Your task to perform on an android device: change alarm snooze length Image 0: 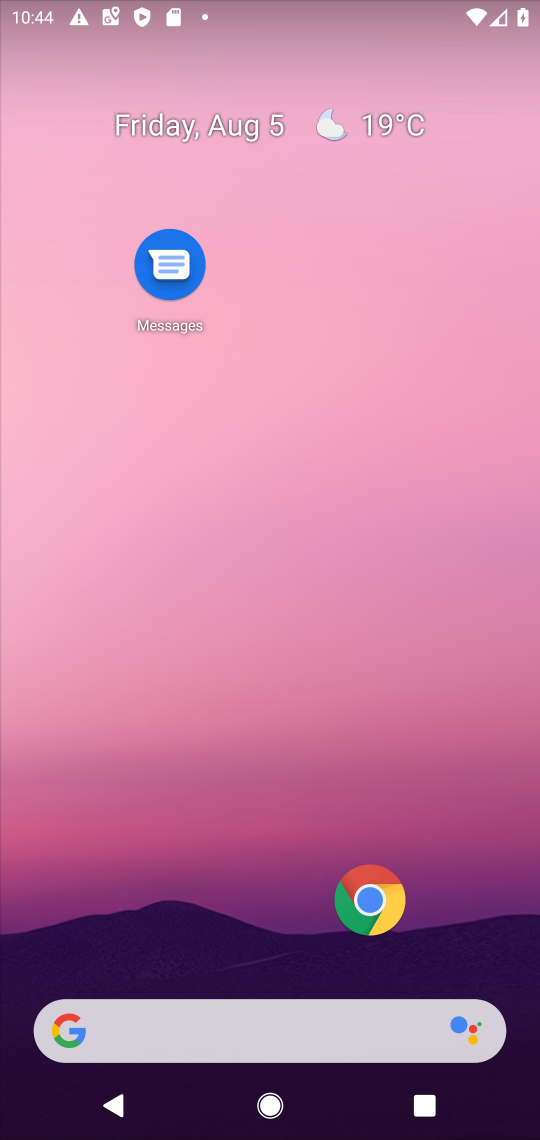
Step 0: press home button
Your task to perform on an android device: change alarm snooze length Image 1: 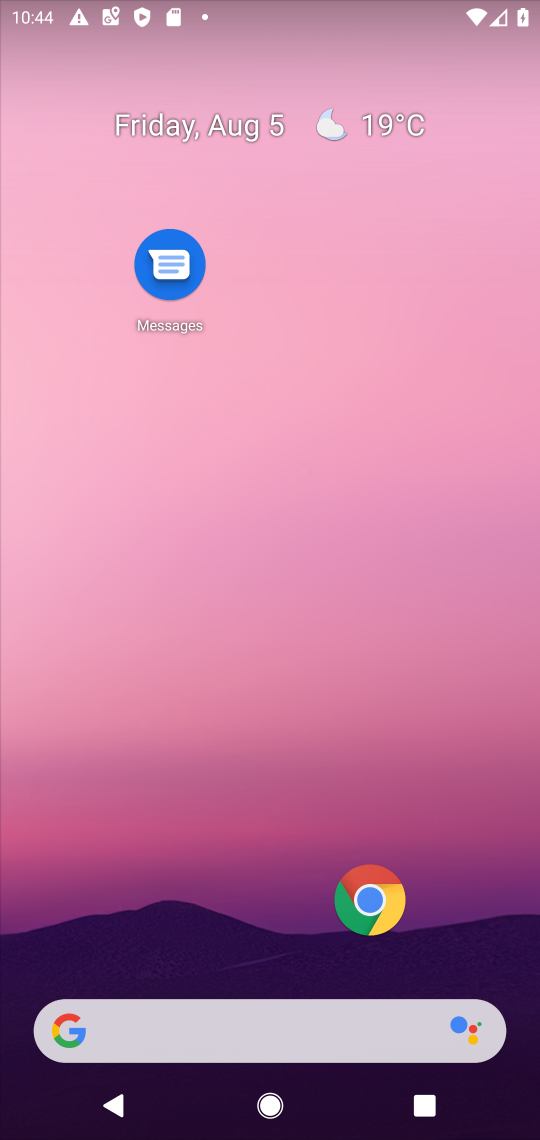
Step 1: drag from (292, 744) to (354, 202)
Your task to perform on an android device: change alarm snooze length Image 2: 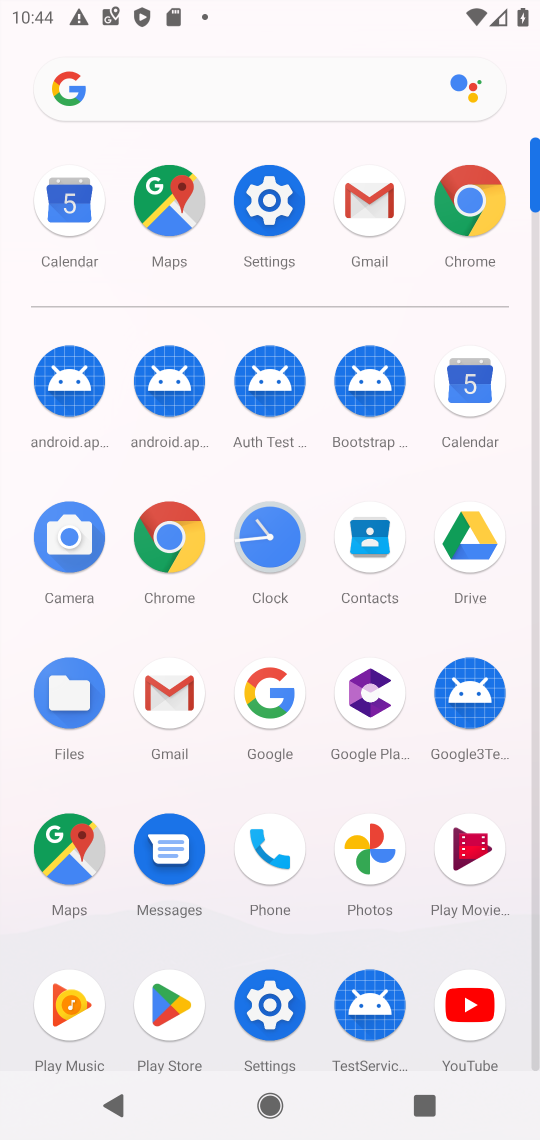
Step 2: click (262, 1010)
Your task to perform on an android device: change alarm snooze length Image 3: 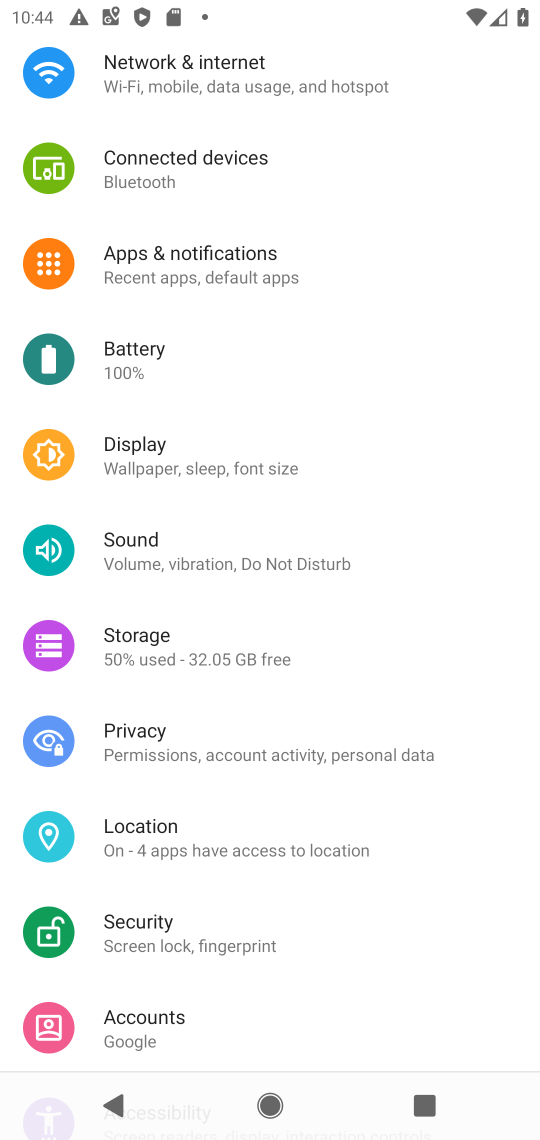
Step 3: press home button
Your task to perform on an android device: change alarm snooze length Image 4: 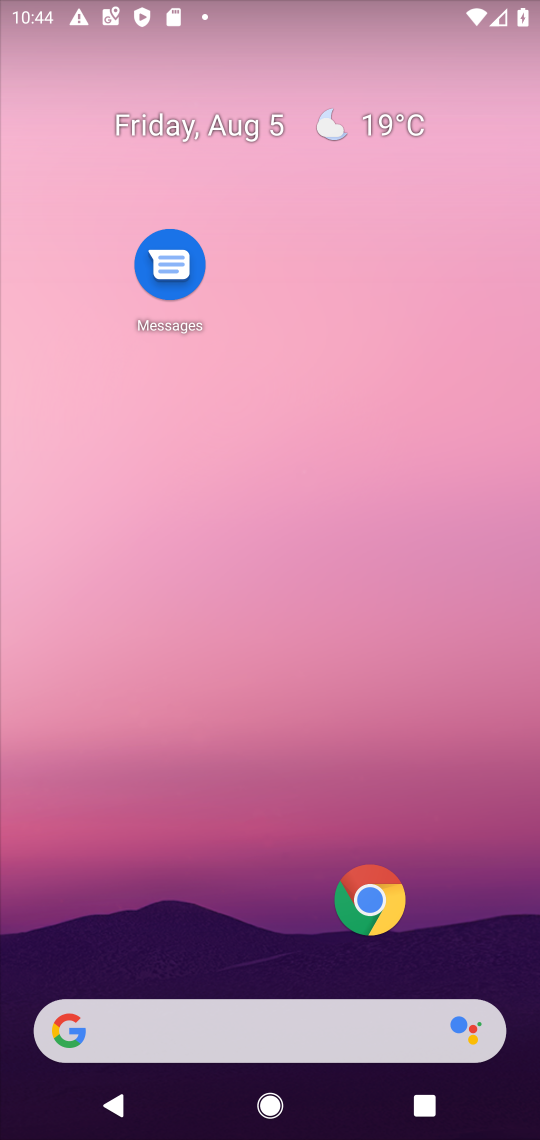
Step 4: drag from (357, 995) to (271, 347)
Your task to perform on an android device: change alarm snooze length Image 5: 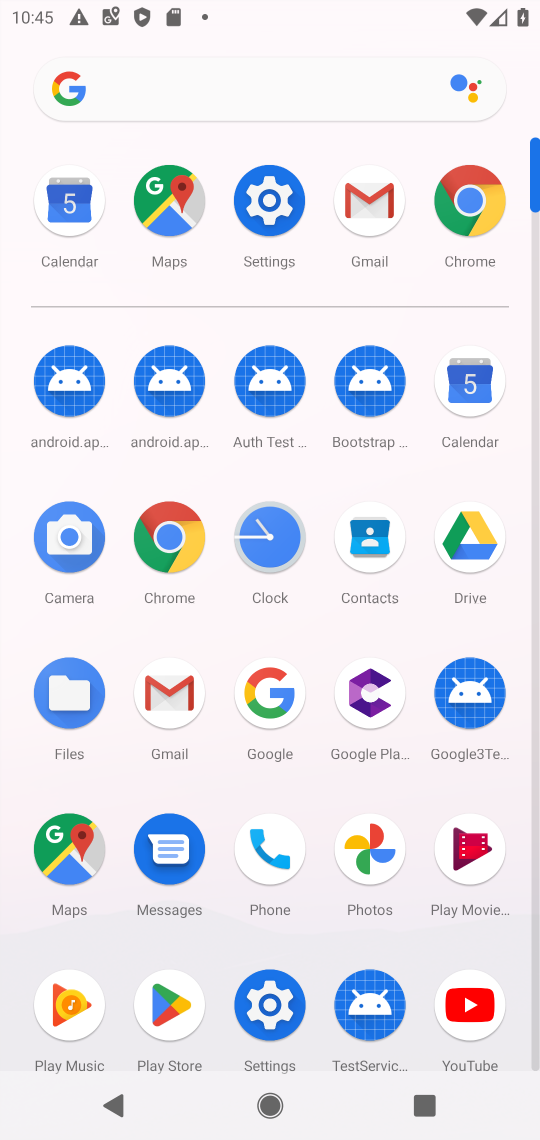
Step 5: click (293, 562)
Your task to perform on an android device: change alarm snooze length Image 6: 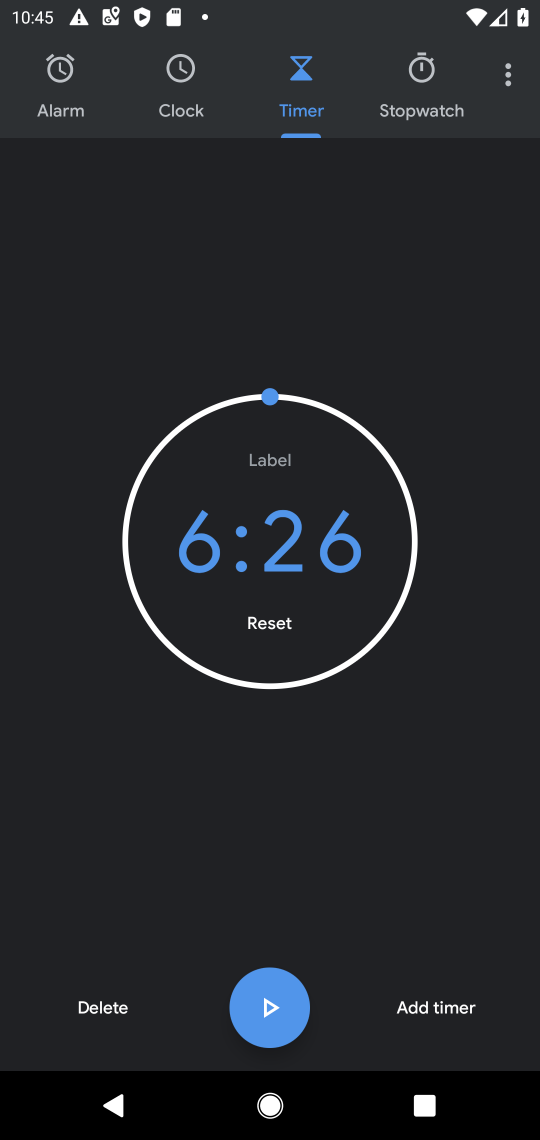
Step 6: click (511, 66)
Your task to perform on an android device: change alarm snooze length Image 7: 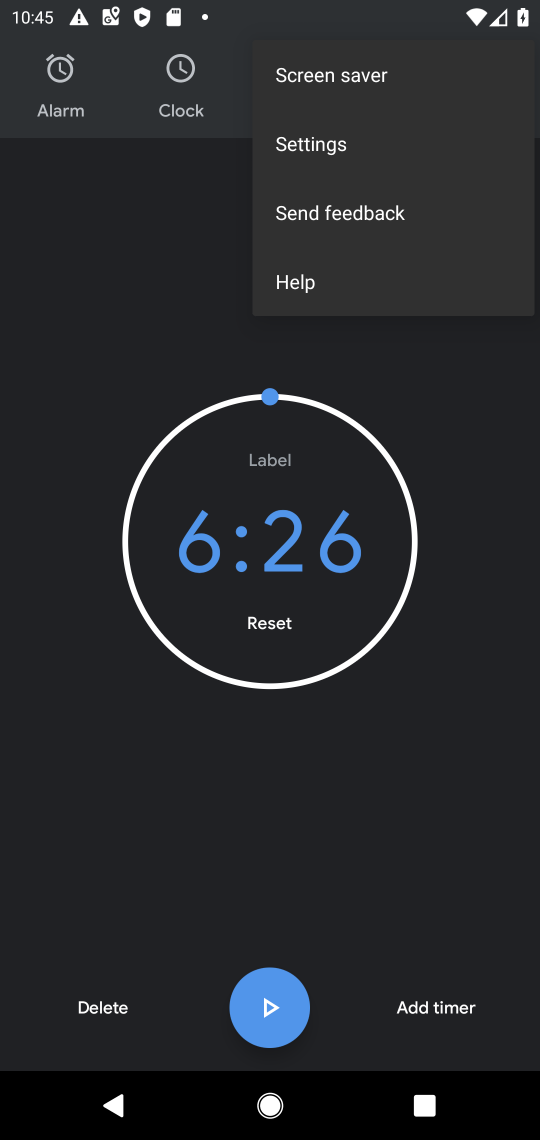
Step 7: click (310, 153)
Your task to perform on an android device: change alarm snooze length Image 8: 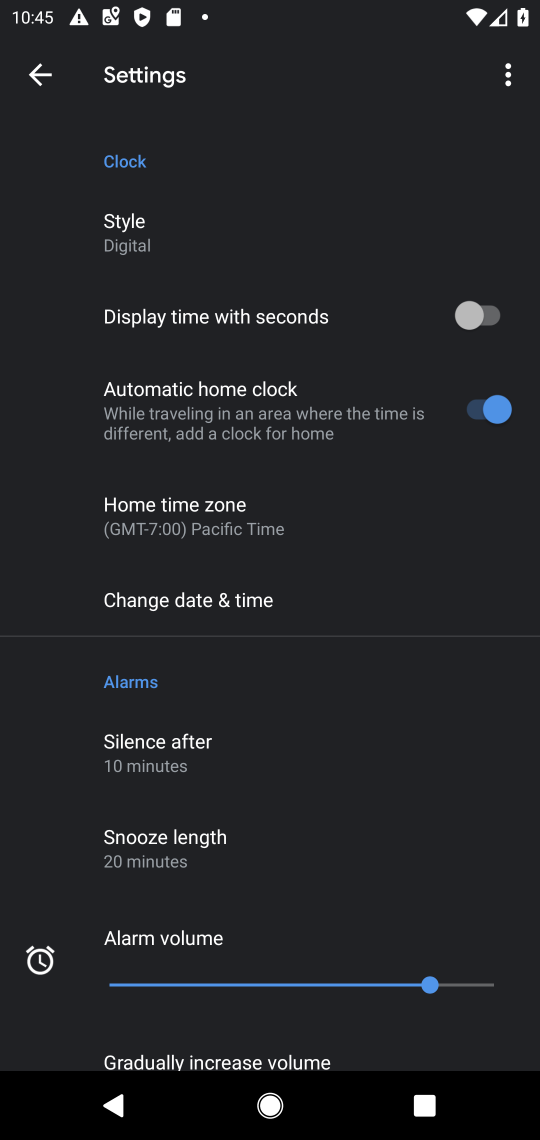
Step 8: click (158, 864)
Your task to perform on an android device: change alarm snooze length Image 9: 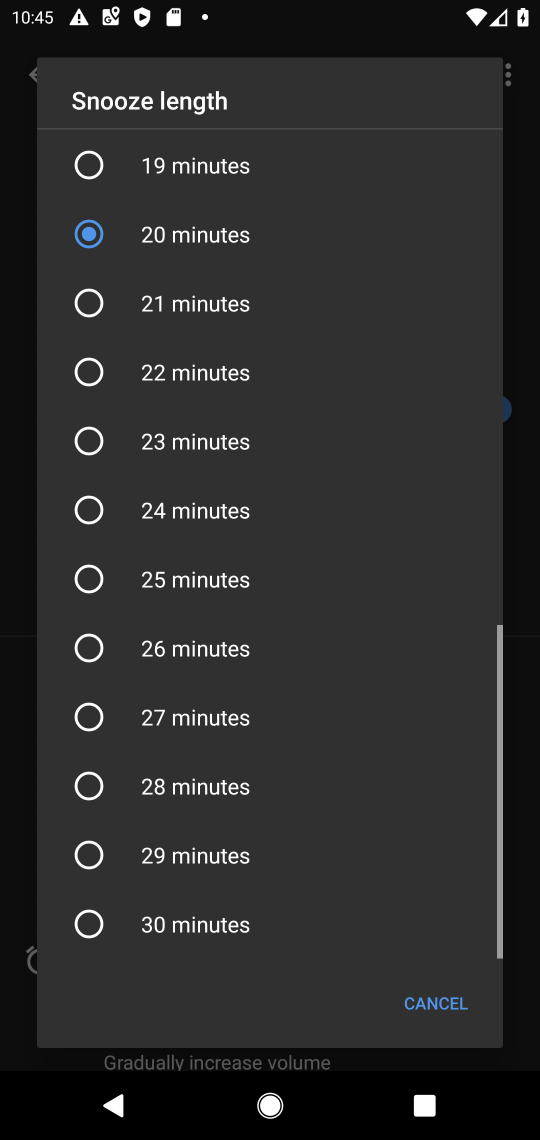
Step 9: click (170, 781)
Your task to perform on an android device: change alarm snooze length Image 10: 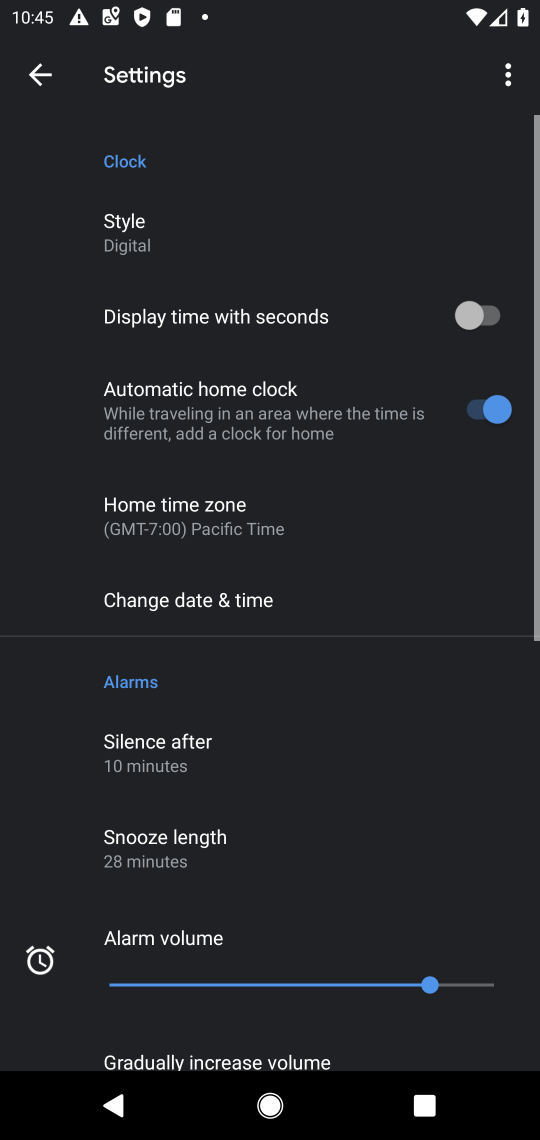
Step 10: task complete